Your task to perform on an android device: choose inbox layout in the gmail app Image 0: 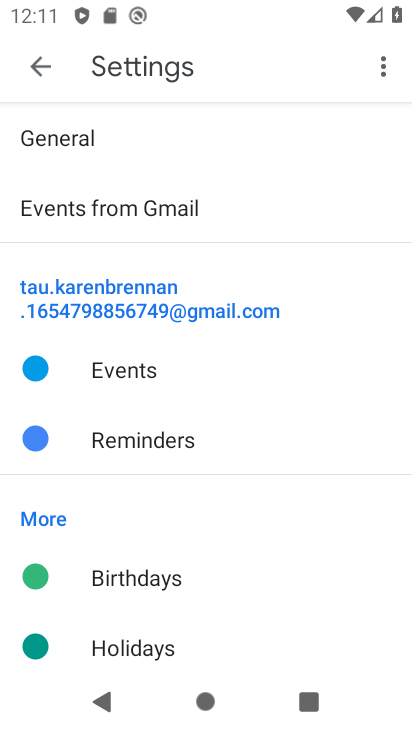
Step 0: press home button
Your task to perform on an android device: choose inbox layout in the gmail app Image 1: 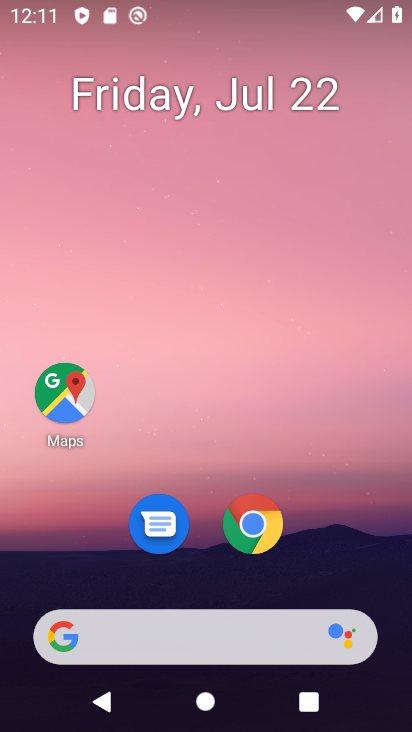
Step 1: drag from (222, 635) to (294, 127)
Your task to perform on an android device: choose inbox layout in the gmail app Image 2: 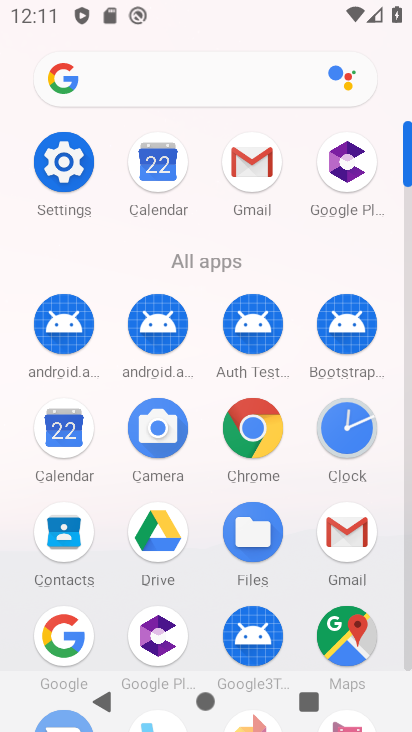
Step 2: click (245, 181)
Your task to perform on an android device: choose inbox layout in the gmail app Image 3: 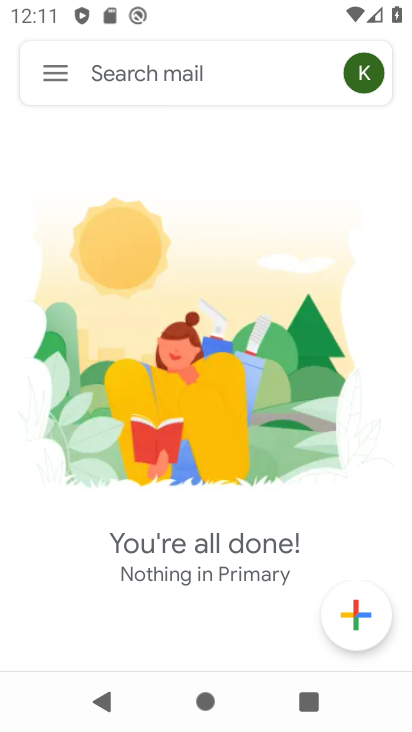
Step 3: click (58, 74)
Your task to perform on an android device: choose inbox layout in the gmail app Image 4: 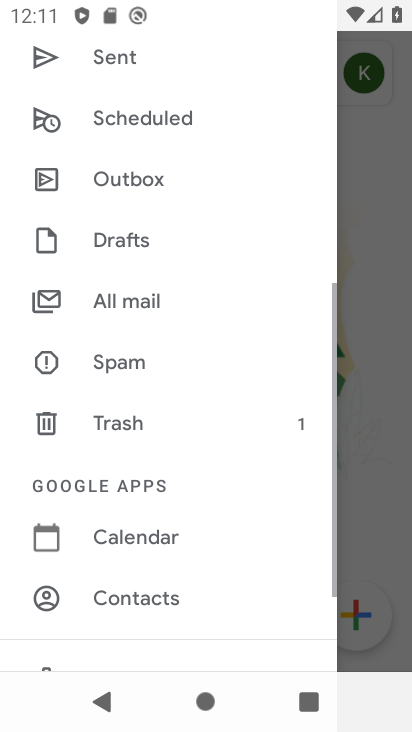
Step 4: drag from (196, 580) to (285, 131)
Your task to perform on an android device: choose inbox layout in the gmail app Image 5: 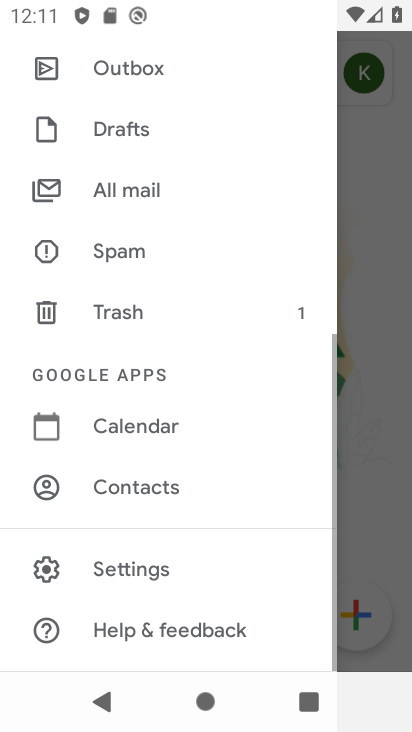
Step 5: click (139, 572)
Your task to perform on an android device: choose inbox layout in the gmail app Image 6: 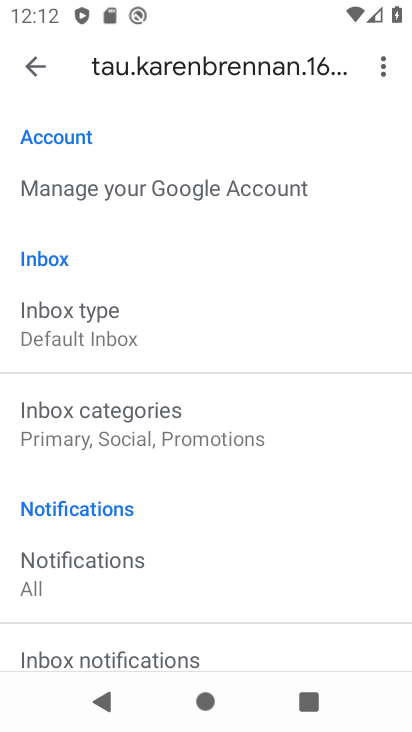
Step 6: click (79, 340)
Your task to perform on an android device: choose inbox layout in the gmail app Image 7: 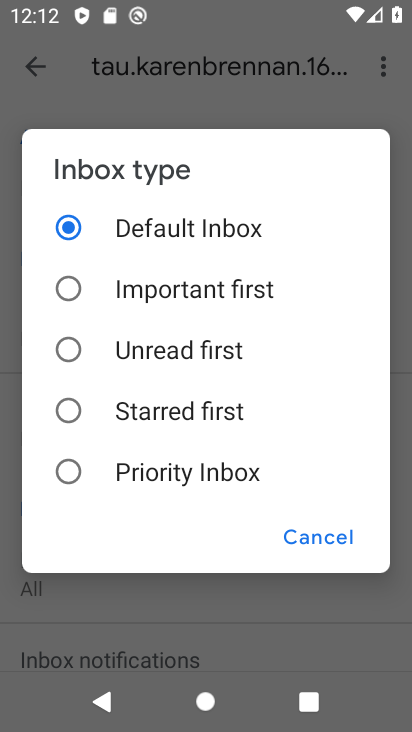
Step 7: click (71, 345)
Your task to perform on an android device: choose inbox layout in the gmail app Image 8: 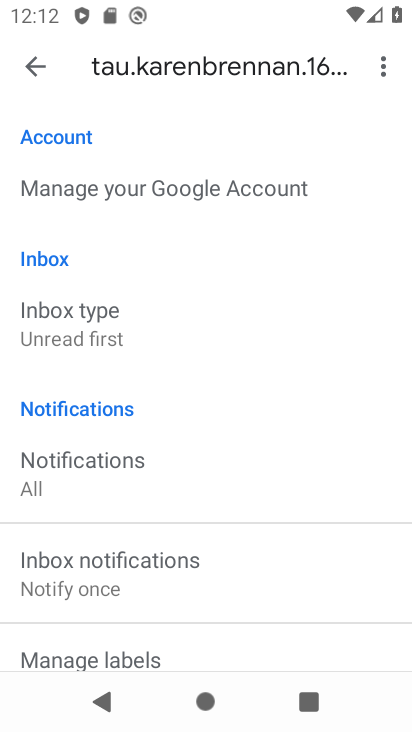
Step 8: task complete